Your task to perform on an android device: Open CNN.com Image 0: 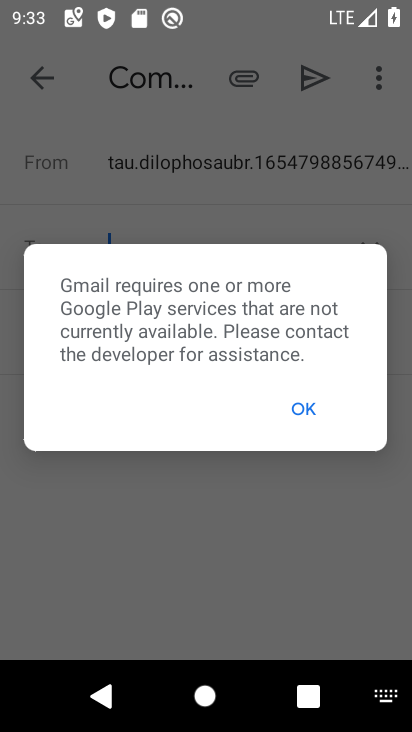
Step 0: press back button
Your task to perform on an android device: Open CNN.com Image 1: 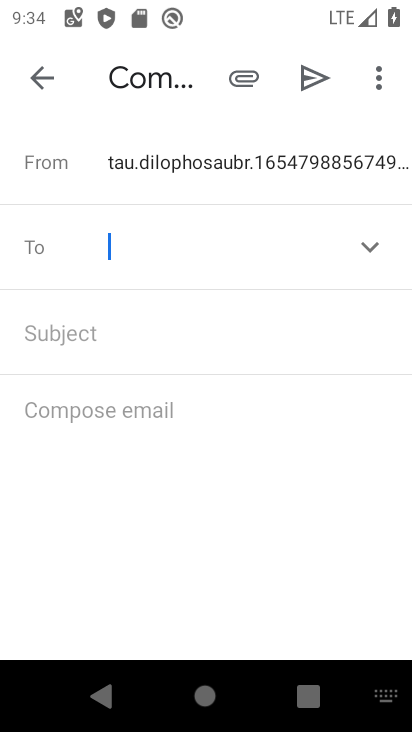
Step 1: press back button
Your task to perform on an android device: Open CNN.com Image 2: 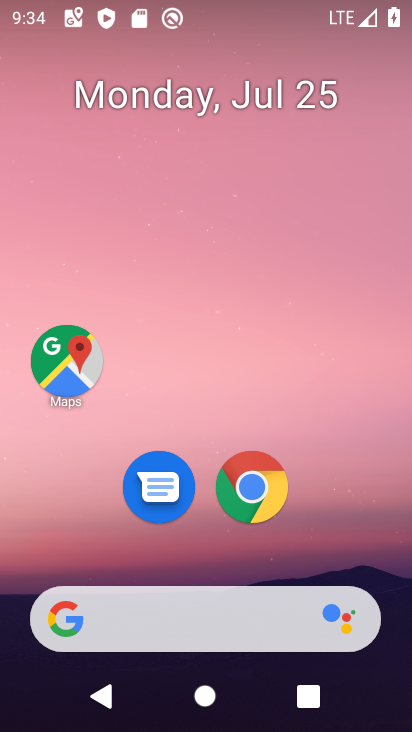
Step 2: click (247, 484)
Your task to perform on an android device: Open CNN.com Image 3: 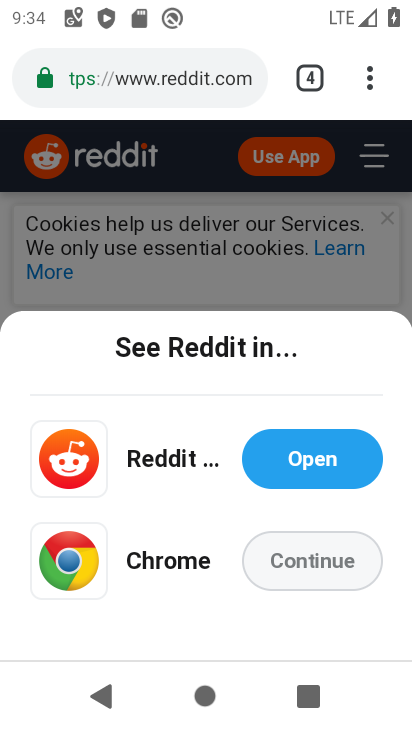
Step 3: click (302, 75)
Your task to perform on an android device: Open CNN.com Image 4: 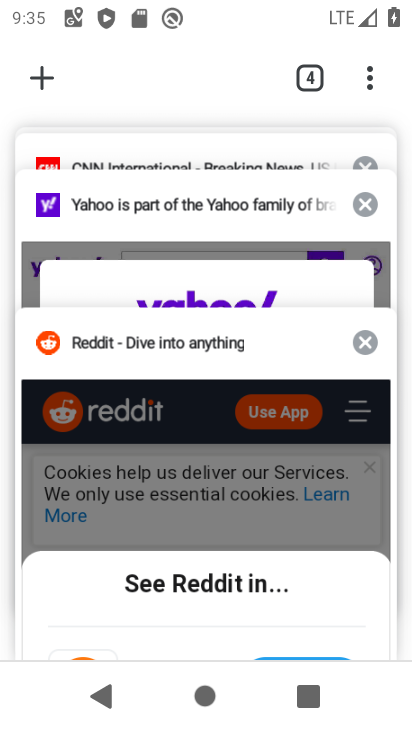
Step 4: click (108, 146)
Your task to perform on an android device: Open CNN.com Image 5: 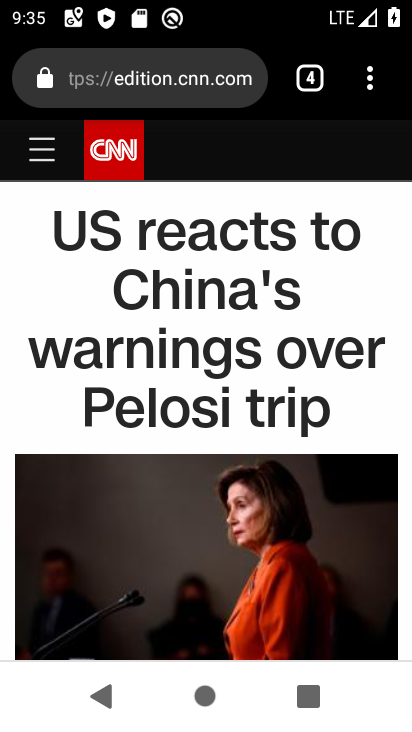
Step 5: task complete